Your task to perform on an android device: Turn off the flashlight Image 0: 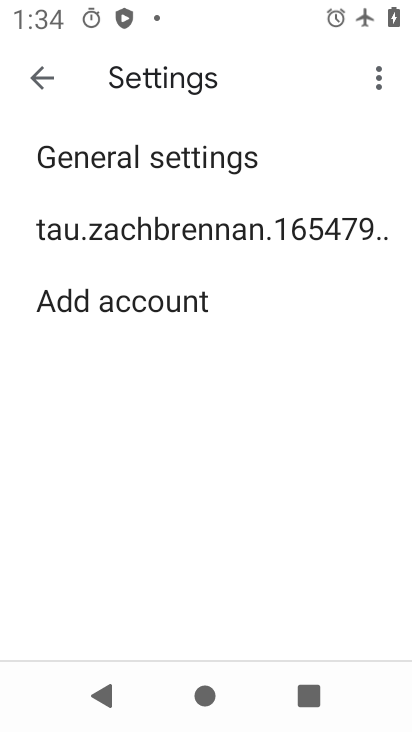
Step 0: press home button
Your task to perform on an android device: Turn off the flashlight Image 1: 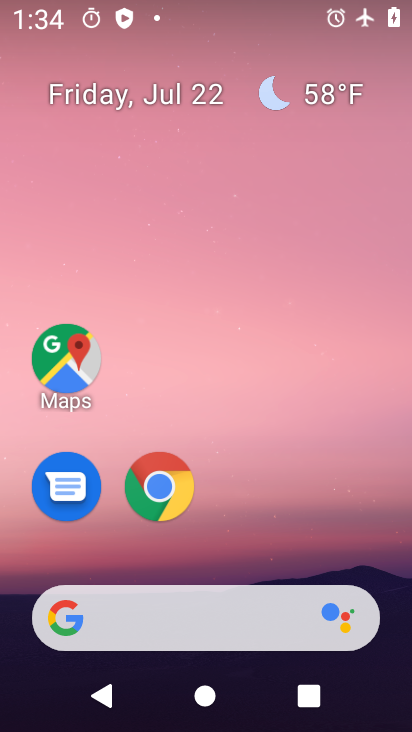
Step 1: drag from (243, 4) to (262, 304)
Your task to perform on an android device: Turn off the flashlight Image 2: 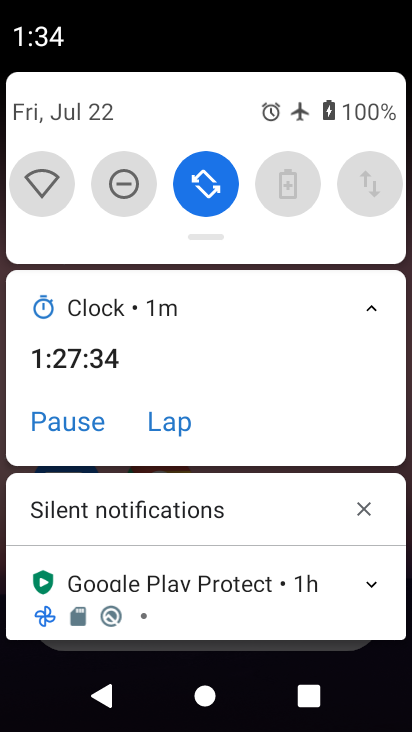
Step 2: drag from (155, 113) to (168, 379)
Your task to perform on an android device: Turn off the flashlight Image 3: 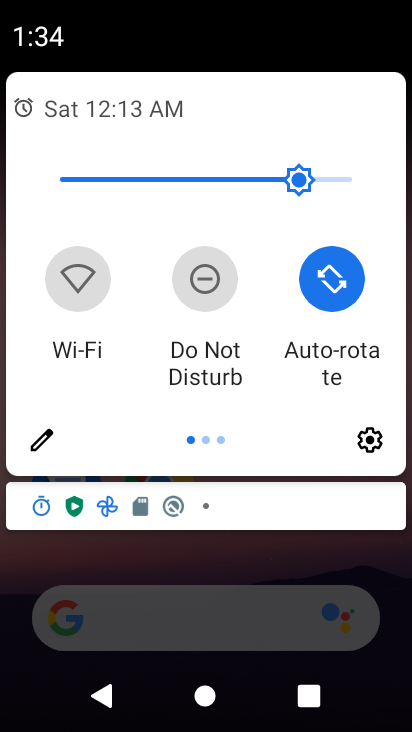
Step 3: click (54, 446)
Your task to perform on an android device: Turn off the flashlight Image 4: 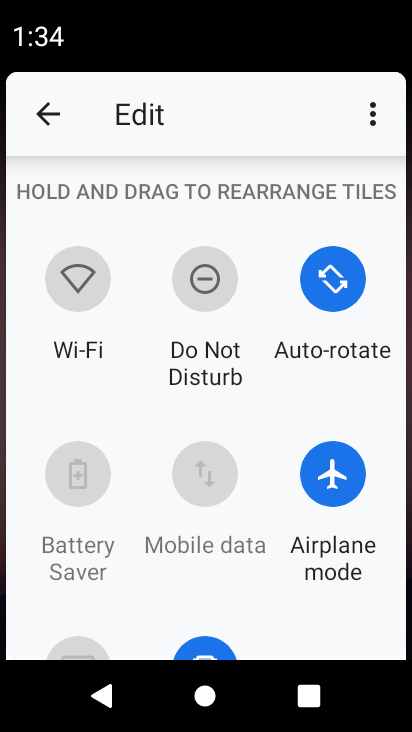
Step 4: task complete